Your task to perform on an android device: turn on airplane mode Image 0: 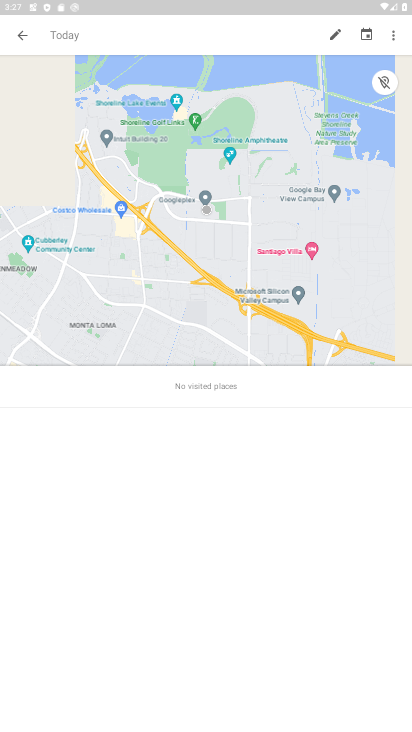
Step 0: press home button
Your task to perform on an android device: turn on airplane mode Image 1: 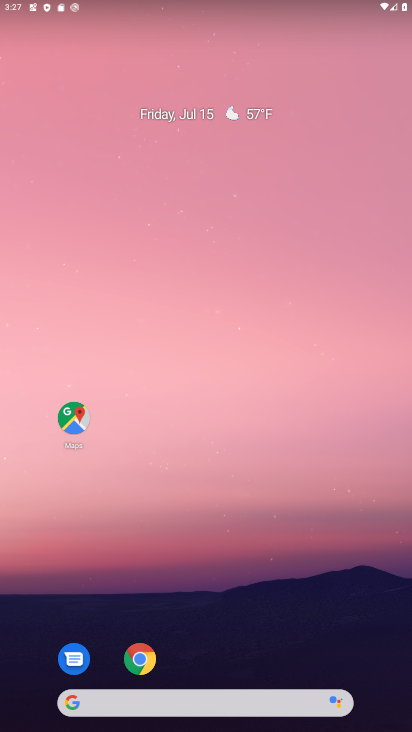
Step 1: drag from (70, 646) to (271, 256)
Your task to perform on an android device: turn on airplane mode Image 2: 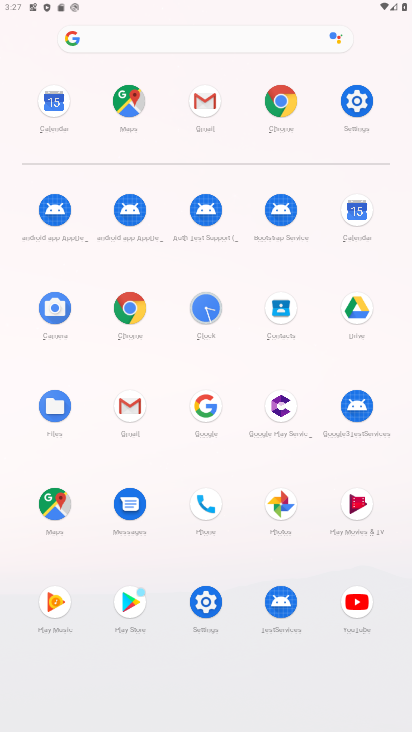
Step 2: click (210, 596)
Your task to perform on an android device: turn on airplane mode Image 3: 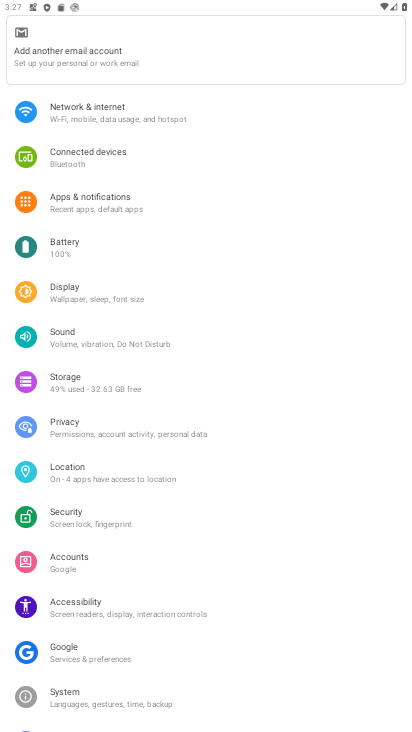
Step 3: click (104, 110)
Your task to perform on an android device: turn on airplane mode Image 4: 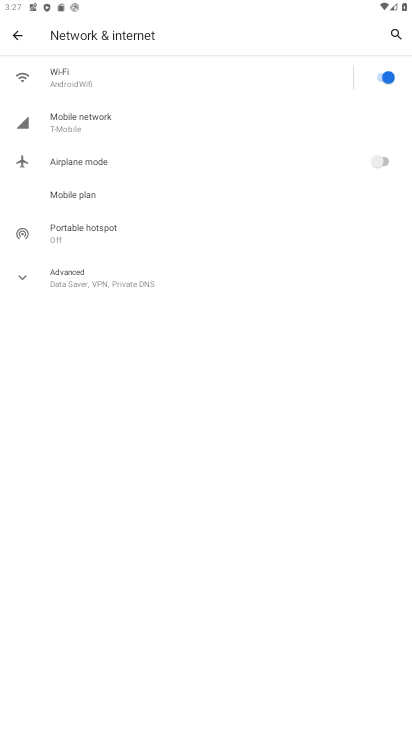
Step 4: click (377, 159)
Your task to perform on an android device: turn on airplane mode Image 5: 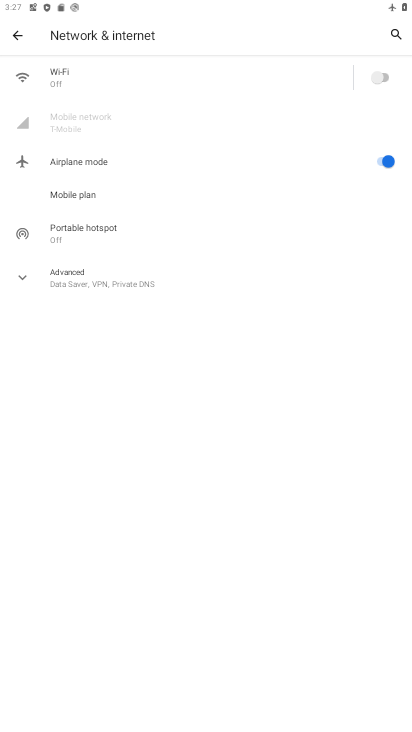
Step 5: task complete